Your task to perform on an android device: toggle pop-ups in chrome Image 0: 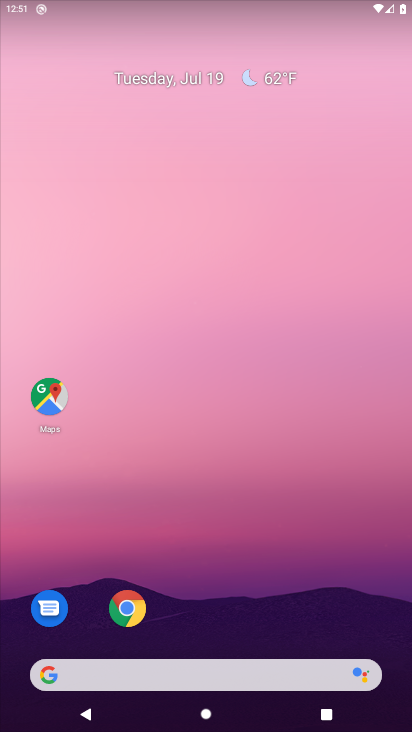
Step 0: press home button
Your task to perform on an android device: toggle pop-ups in chrome Image 1: 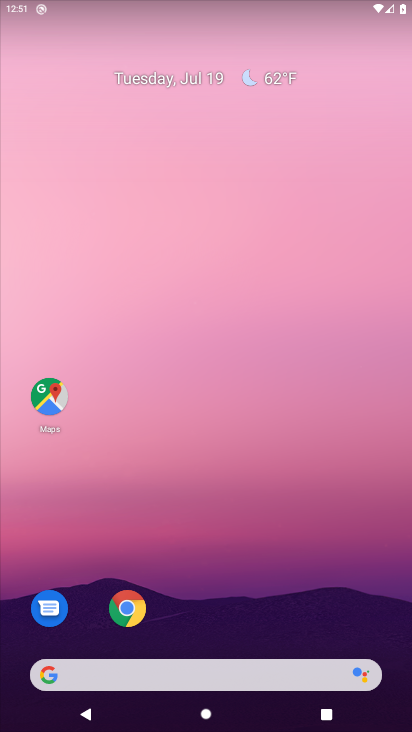
Step 1: click (125, 603)
Your task to perform on an android device: toggle pop-ups in chrome Image 2: 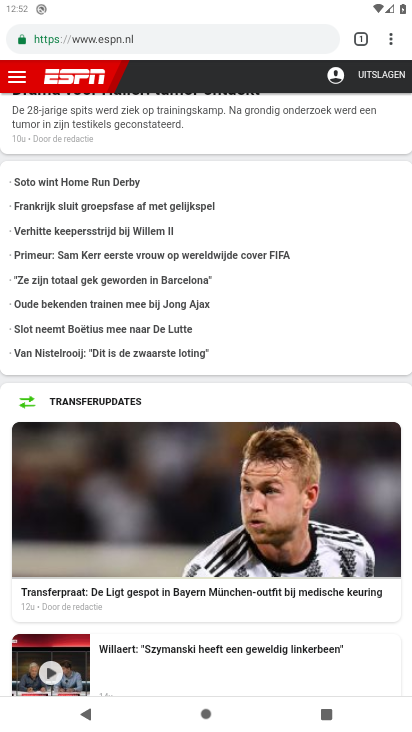
Step 2: click (390, 40)
Your task to perform on an android device: toggle pop-ups in chrome Image 3: 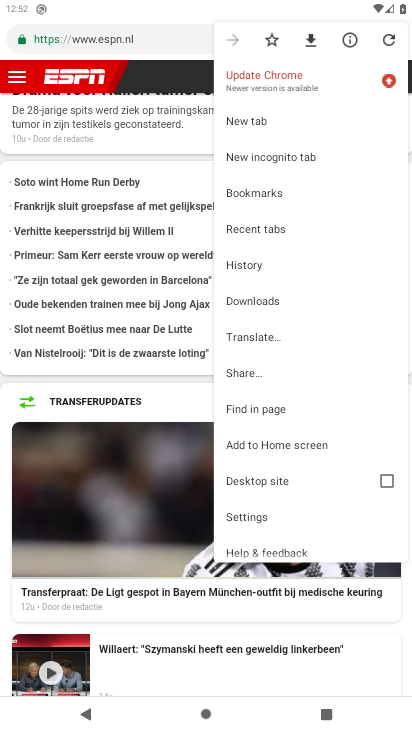
Step 3: click (272, 513)
Your task to perform on an android device: toggle pop-ups in chrome Image 4: 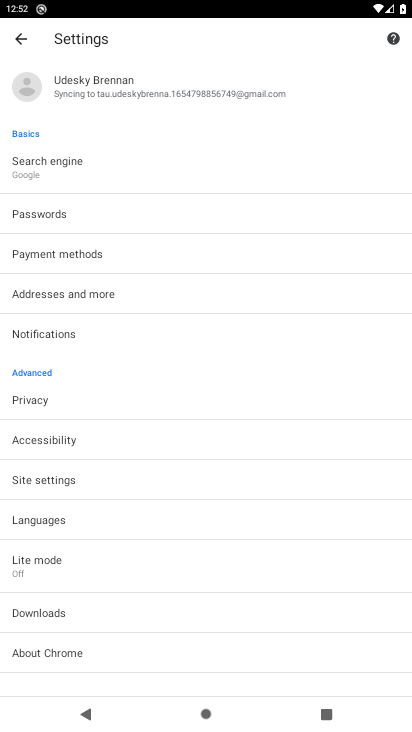
Step 4: click (82, 482)
Your task to perform on an android device: toggle pop-ups in chrome Image 5: 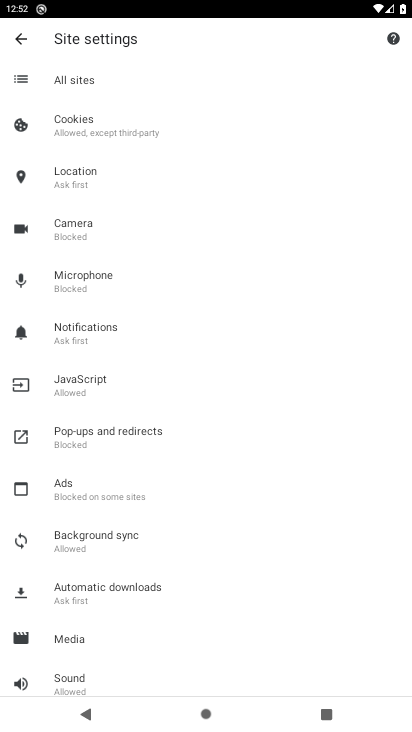
Step 5: click (98, 431)
Your task to perform on an android device: toggle pop-ups in chrome Image 6: 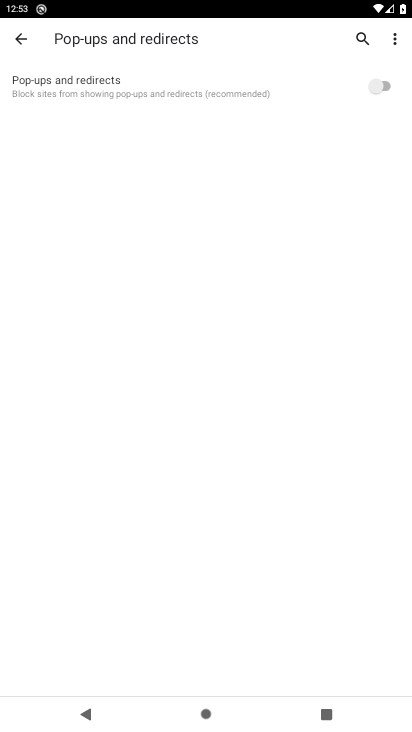
Step 6: click (381, 81)
Your task to perform on an android device: toggle pop-ups in chrome Image 7: 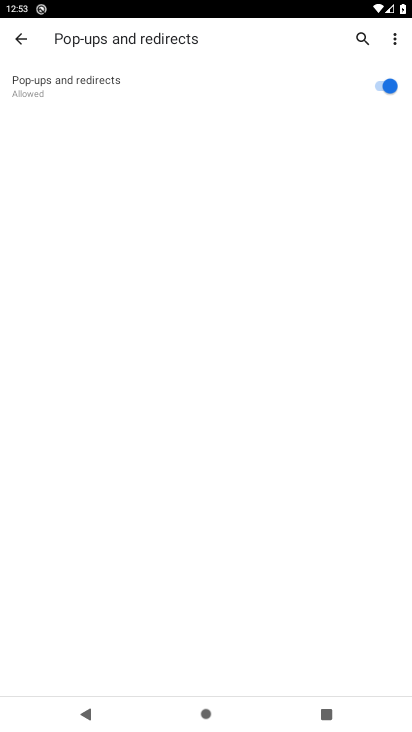
Step 7: task complete